Your task to perform on an android device: open app "LiveIn - Share Your Moment" (install if not already installed) Image 0: 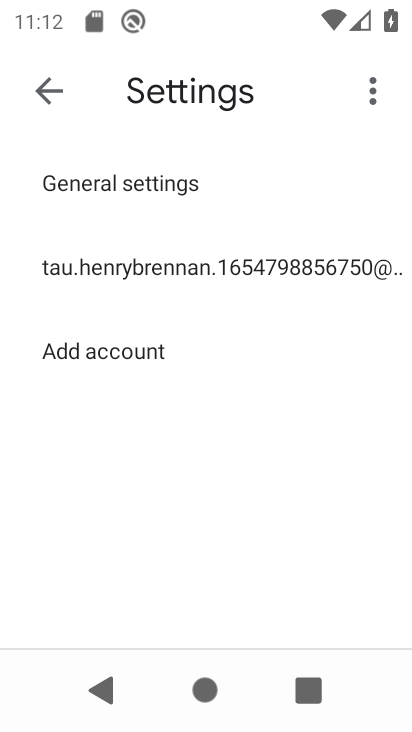
Step 0: press home button
Your task to perform on an android device: open app "LiveIn - Share Your Moment" (install if not already installed) Image 1: 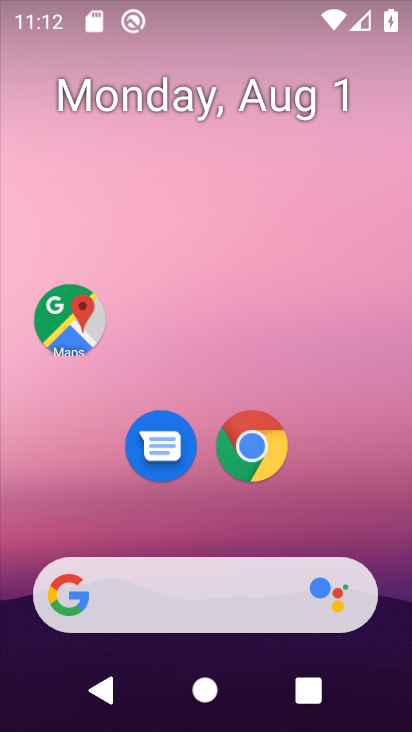
Step 1: drag from (215, 533) to (172, 0)
Your task to perform on an android device: open app "LiveIn - Share Your Moment" (install if not already installed) Image 2: 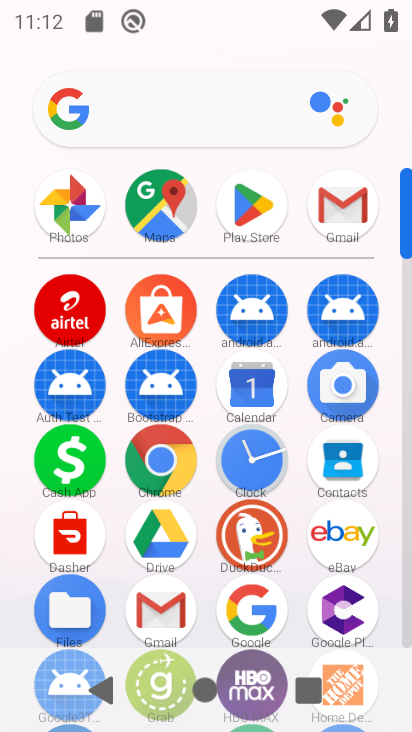
Step 2: click (222, 200)
Your task to perform on an android device: open app "LiveIn - Share Your Moment" (install if not already installed) Image 3: 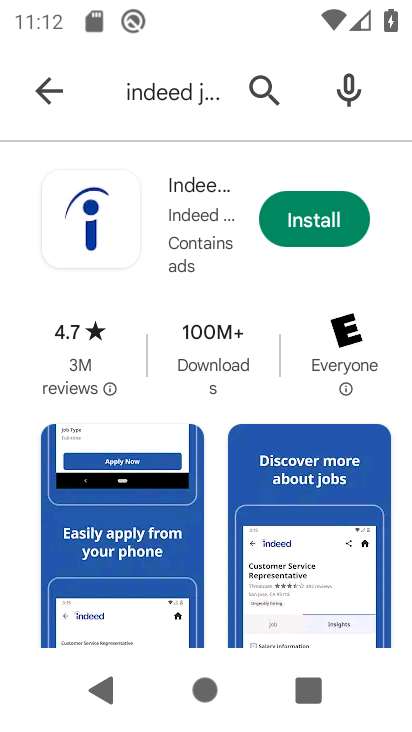
Step 3: click (259, 93)
Your task to perform on an android device: open app "LiveIn - Share Your Moment" (install if not already installed) Image 4: 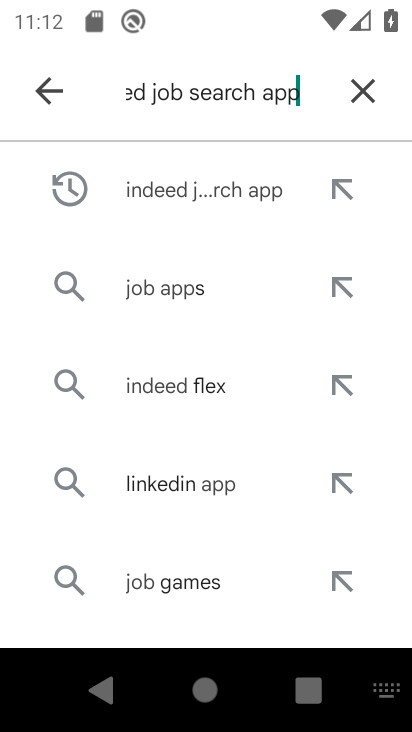
Step 4: click (362, 84)
Your task to perform on an android device: open app "LiveIn - Share Your Moment" (install if not already installed) Image 5: 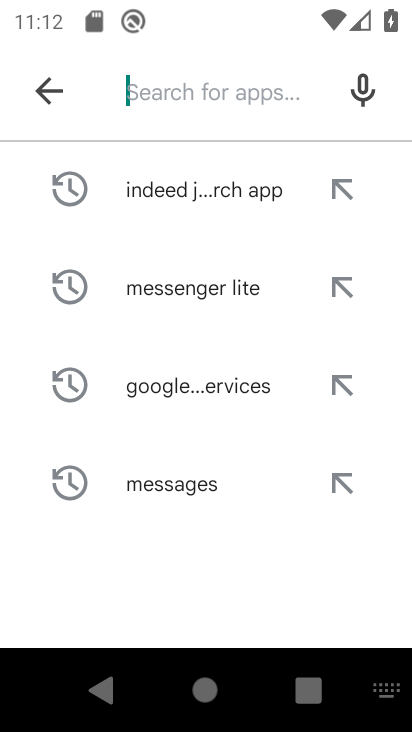
Step 5: type "LiveIn - Share Your Moment"
Your task to perform on an android device: open app "LiveIn - Share Your Moment" (install if not already installed) Image 6: 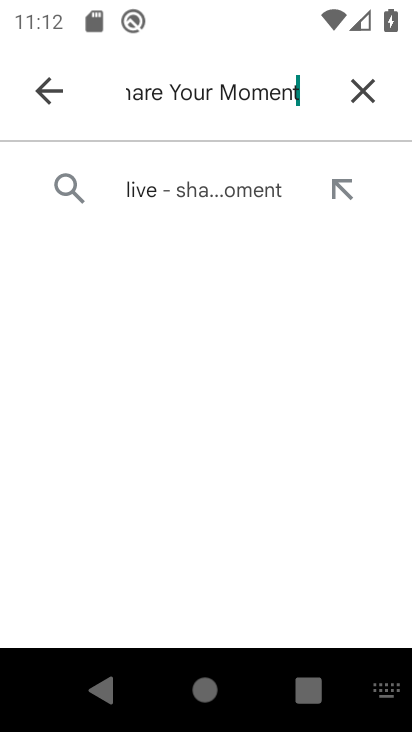
Step 6: type ""
Your task to perform on an android device: open app "LiveIn - Share Your Moment" (install if not already installed) Image 7: 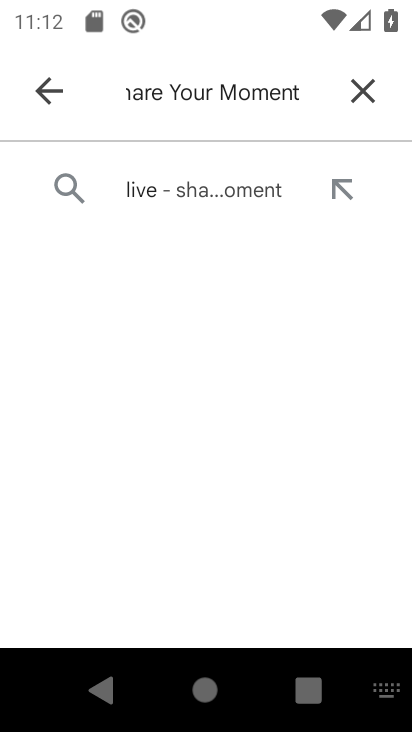
Step 7: click (122, 194)
Your task to perform on an android device: open app "LiveIn - Share Your Moment" (install if not already installed) Image 8: 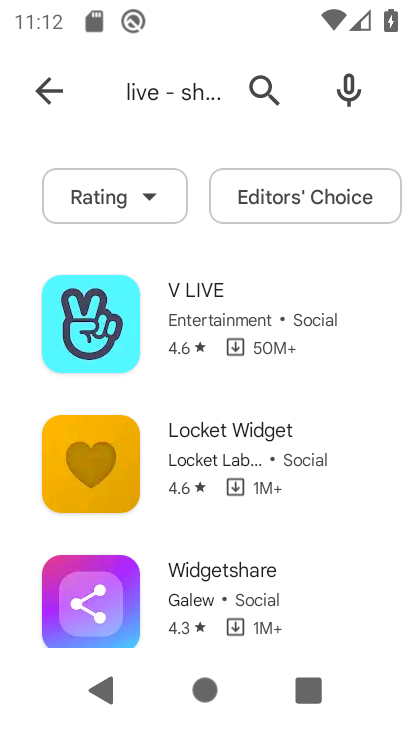
Step 8: task complete